Your task to perform on an android device: turn on the 24-hour format for clock Image 0: 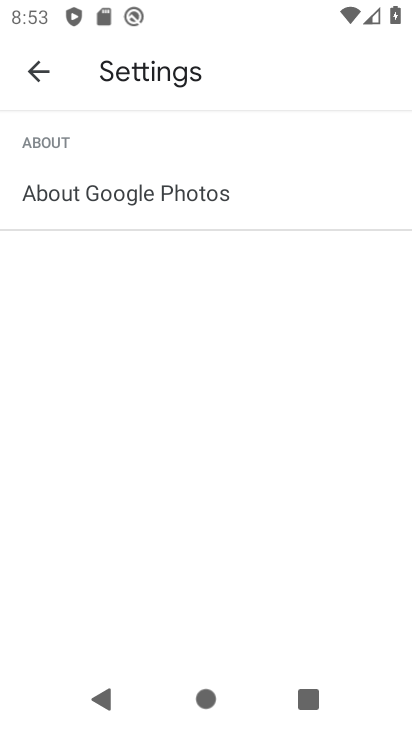
Step 0: press home button
Your task to perform on an android device: turn on the 24-hour format for clock Image 1: 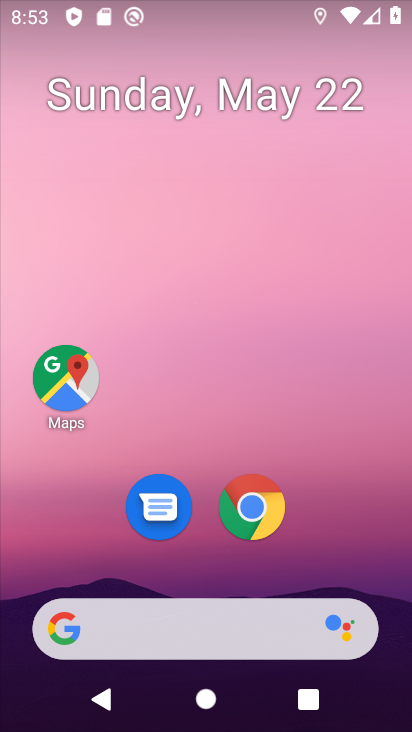
Step 1: drag from (204, 561) to (407, 512)
Your task to perform on an android device: turn on the 24-hour format for clock Image 2: 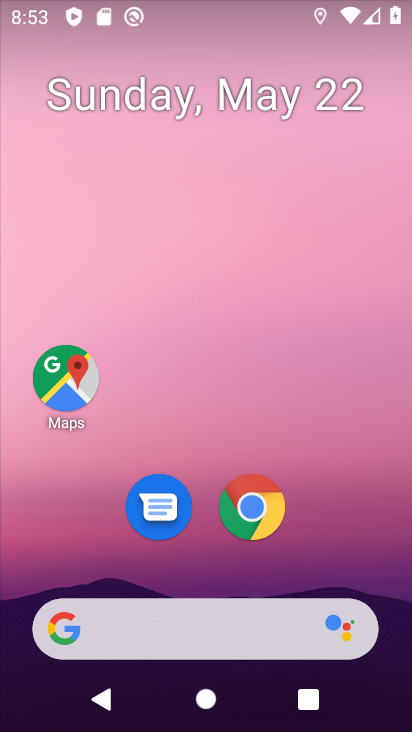
Step 2: drag from (195, 576) to (182, 45)
Your task to perform on an android device: turn on the 24-hour format for clock Image 3: 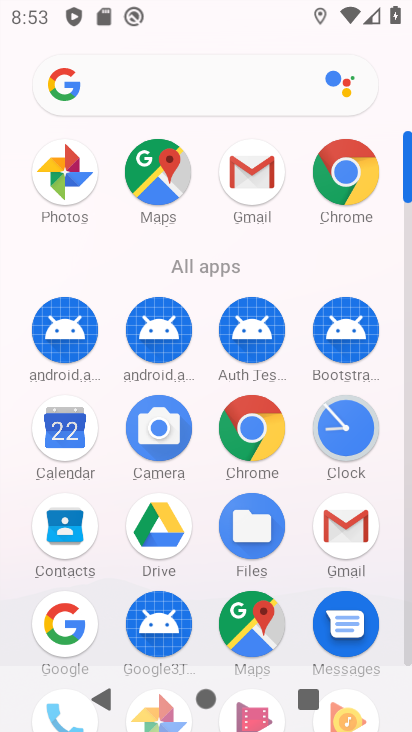
Step 3: click (348, 433)
Your task to perform on an android device: turn on the 24-hour format for clock Image 4: 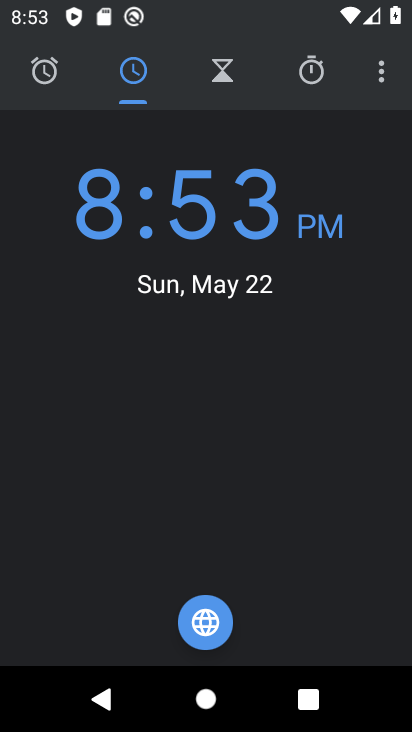
Step 4: click (383, 80)
Your task to perform on an android device: turn on the 24-hour format for clock Image 5: 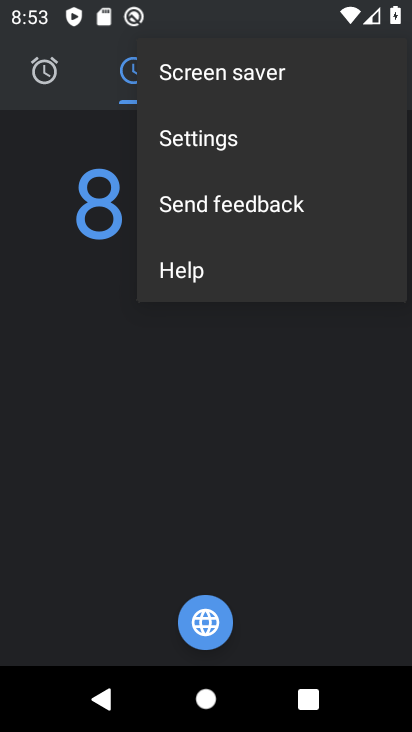
Step 5: click (221, 139)
Your task to perform on an android device: turn on the 24-hour format for clock Image 6: 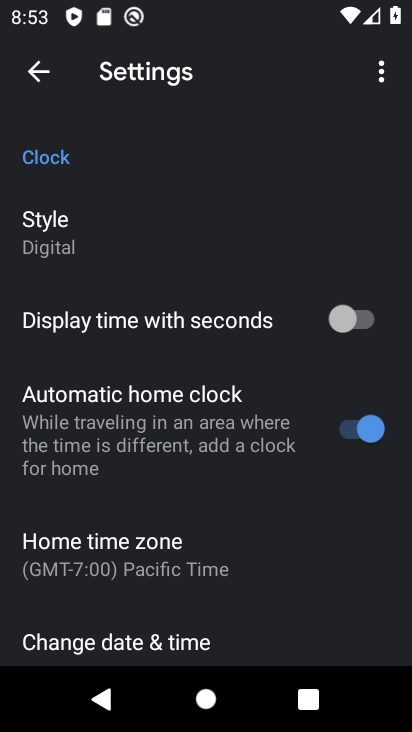
Step 6: click (158, 631)
Your task to perform on an android device: turn on the 24-hour format for clock Image 7: 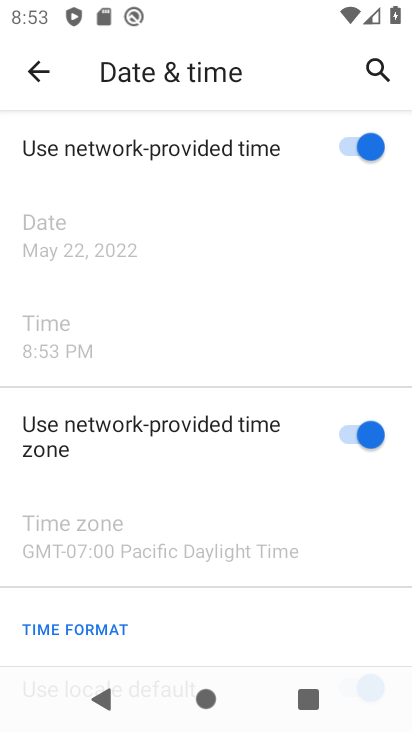
Step 7: drag from (327, 596) to (239, 244)
Your task to perform on an android device: turn on the 24-hour format for clock Image 8: 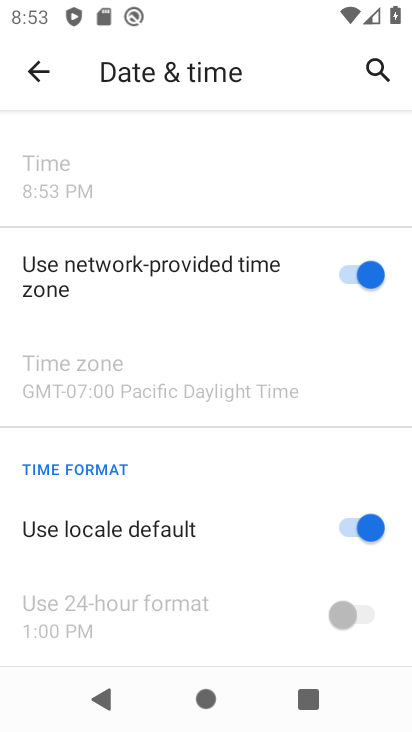
Step 8: click (353, 529)
Your task to perform on an android device: turn on the 24-hour format for clock Image 9: 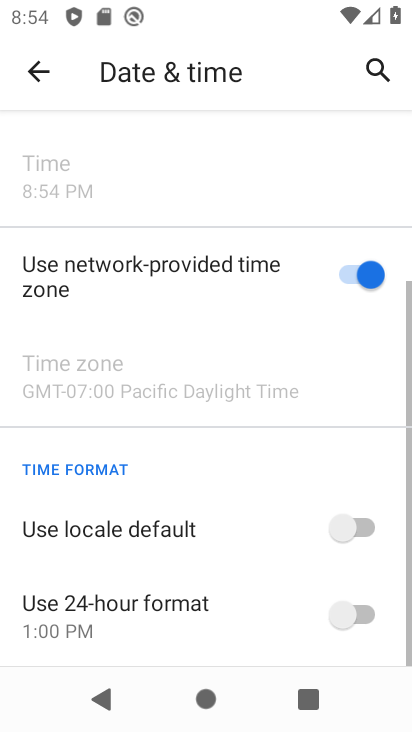
Step 9: click (355, 610)
Your task to perform on an android device: turn on the 24-hour format for clock Image 10: 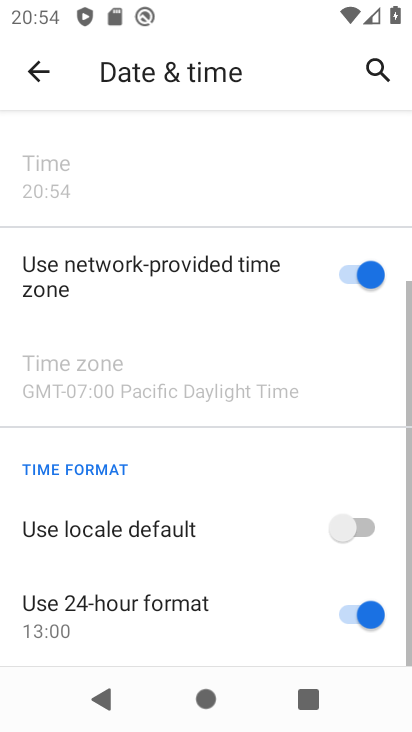
Step 10: task complete